Your task to perform on an android device: change notifications settings Image 0: 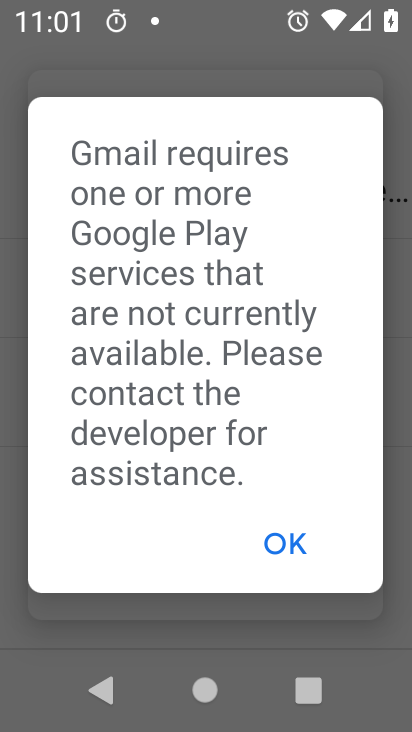
Step 0: press home button
Your task to perform on an android device: change notifications settings Image 1: 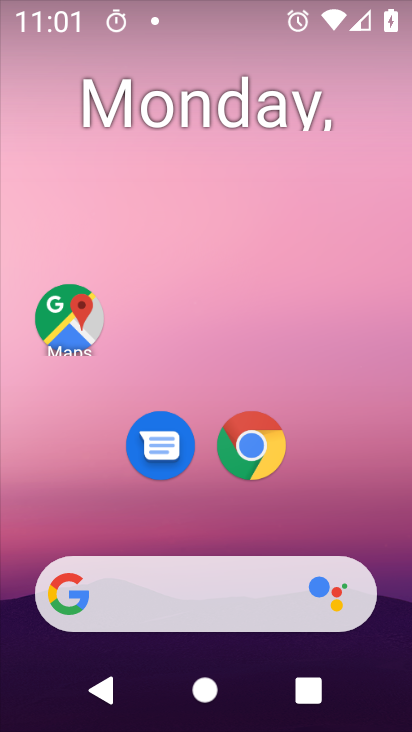
Step 1: drag from (306, 509) to (62, 75)
Your task to perform on an android device: change notifications settings Image 2: 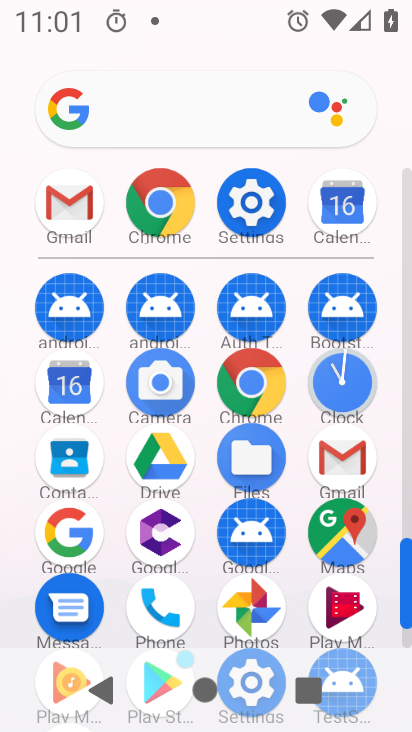
Step 2: click (256, 194)
Your task to perform on an android device: change notifications settings Image 3: 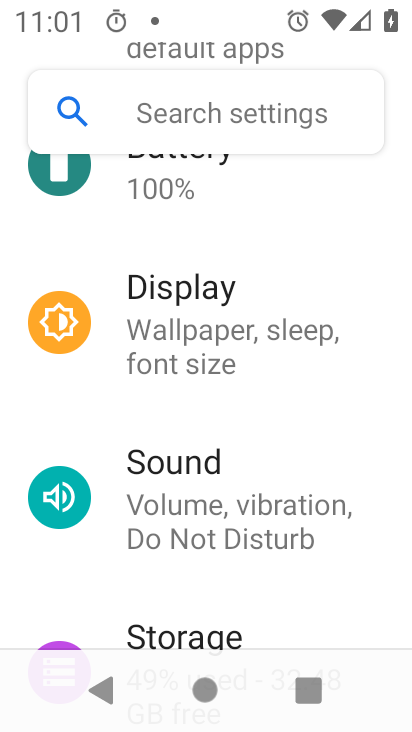
Step 3: drag from (256, 194) to (243, 608)
Your task to perform on an android device: change notifications settings Image 4: 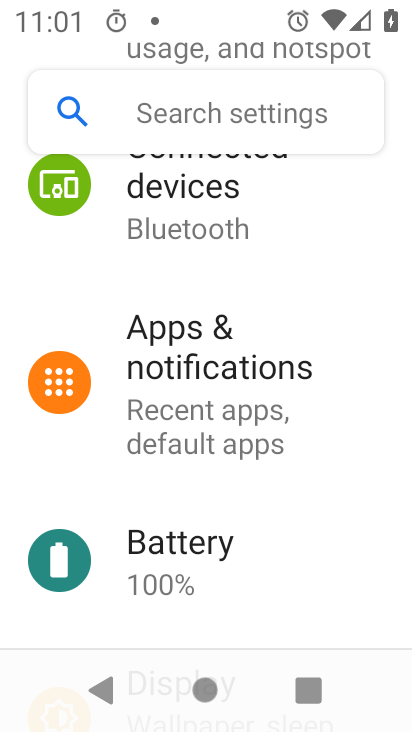
Step 4: click (220, 378)
Your task to perform on an android device: change notifications settings Image 5: 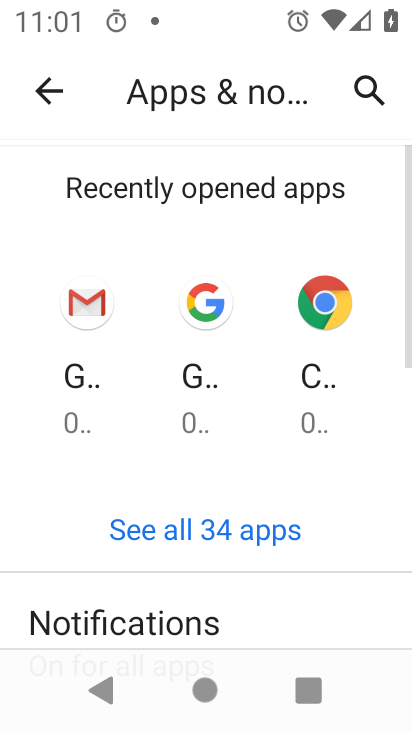
Step 5: drag from (210, 565) to (201, 291)
Your task to perform on an android device: change notifications settings Image 6: 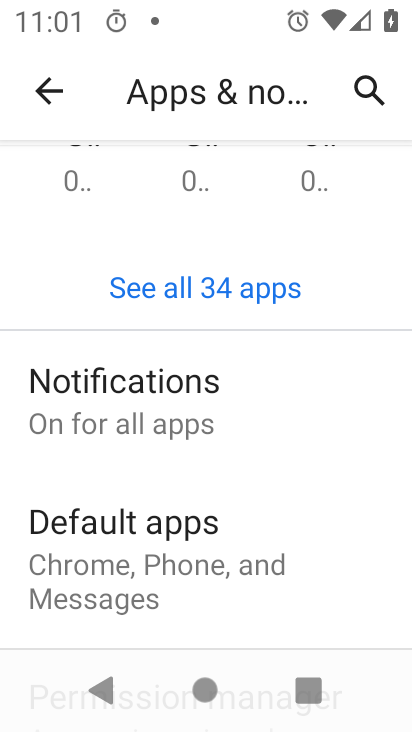
Step 6: click (168, 419)
Your task to perform on an android device: change notifications settings Image 7: 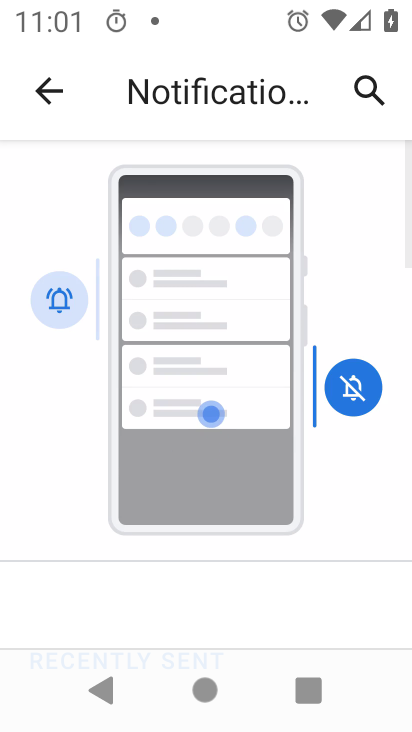
Step 7: drag from (140, 498) to (159, 160)
Your task to perform on an android device: change notifications settings Image 8: 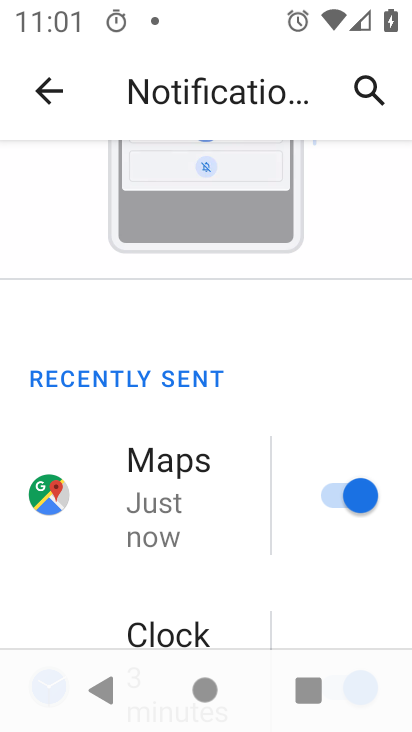
Step 8: click (353, 480)
Your task to perform on an android device: change notifications settings Image 9: 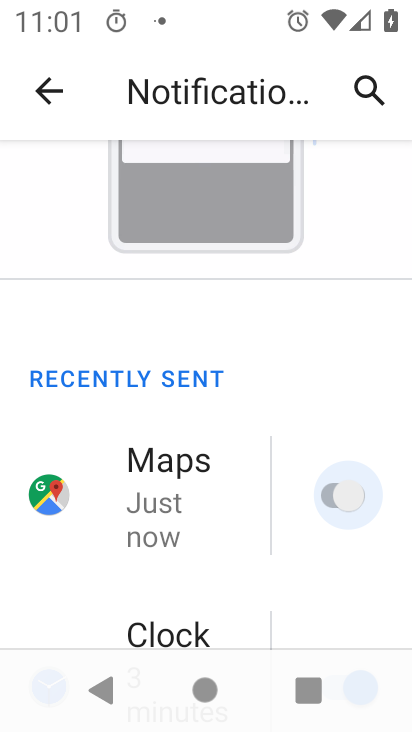
Step 9: drag from (292, 584) to (297, 325)
Your task to perform on an android device: change notifications settings Image 10: 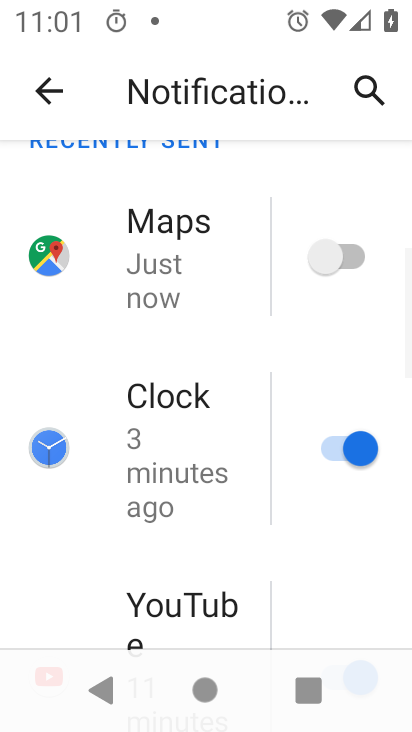
Step 10: click (336, 481)
Your task to perform on an android device: change notifications settings Image 11: 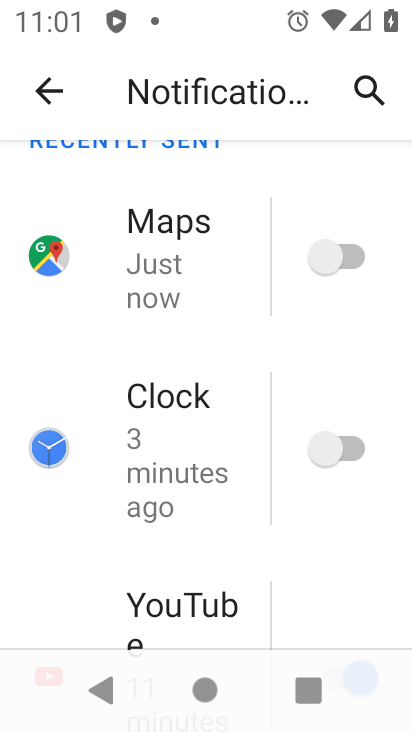
Step 11: drag from (312, 562) to (296, 277)
Your task to perform on an android device: change notifications settings Image 12: 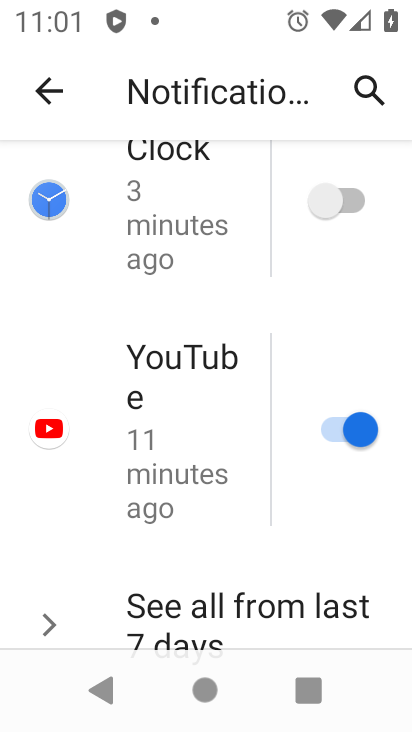
Step 12: click (343, 418)
Your task to perform on an android device: change notifications settings Image 13: 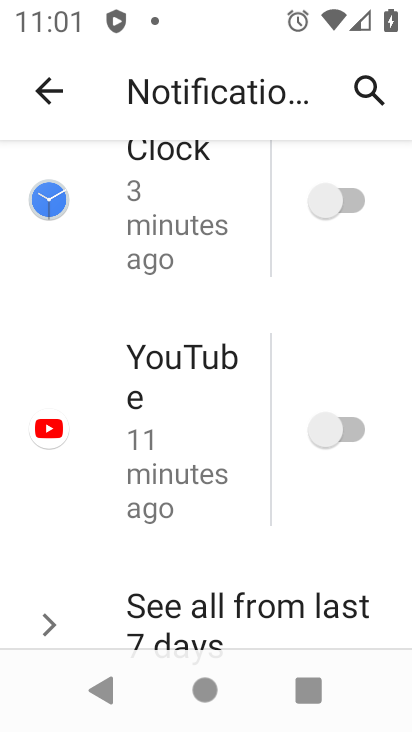
Step 13: task complete